Your task to perform on an android device: What is the recent news? Image 0: 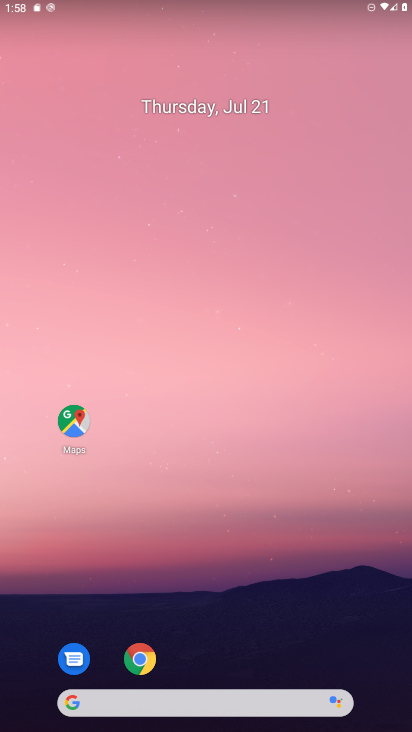
Step 0: press home button
Your task to perform on an android device: What is the recent news? Image 1: 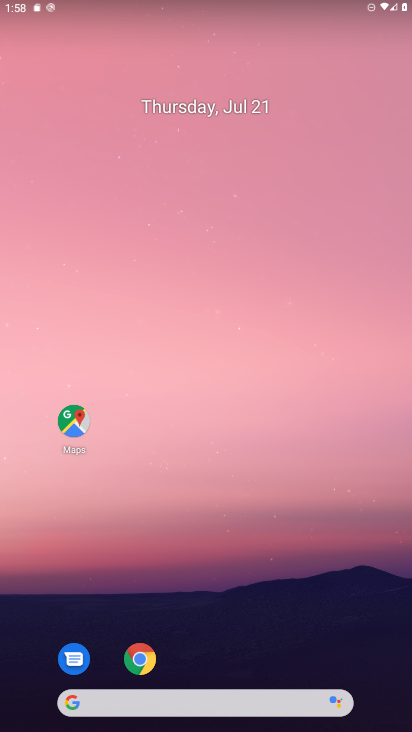
Step 1: click (190, 704)
Your task to perform on an android device: What is the recent news? Image 2: 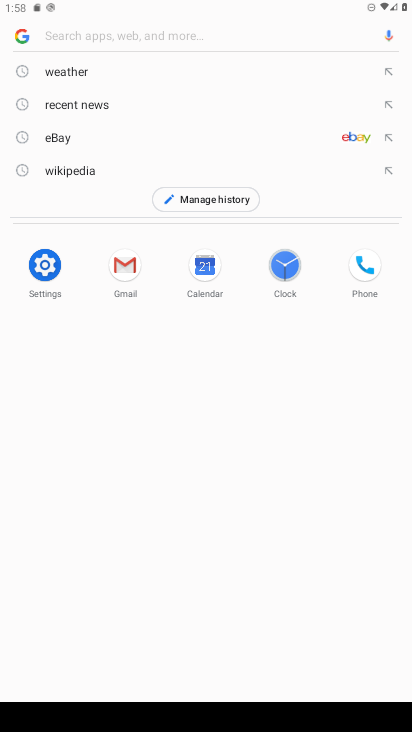
Step 2: click (84, 105)
Your task to perform on an android device: What is the recent news? Image 3: 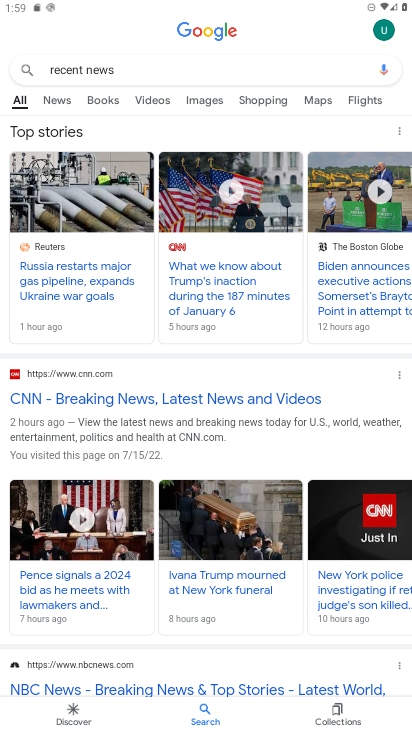
Step 3: task complete